Your task to perform on an android device: Search for "sony triple a" on bestbuy, select the first entry, add it to the cart, then select checkout. Image 0: 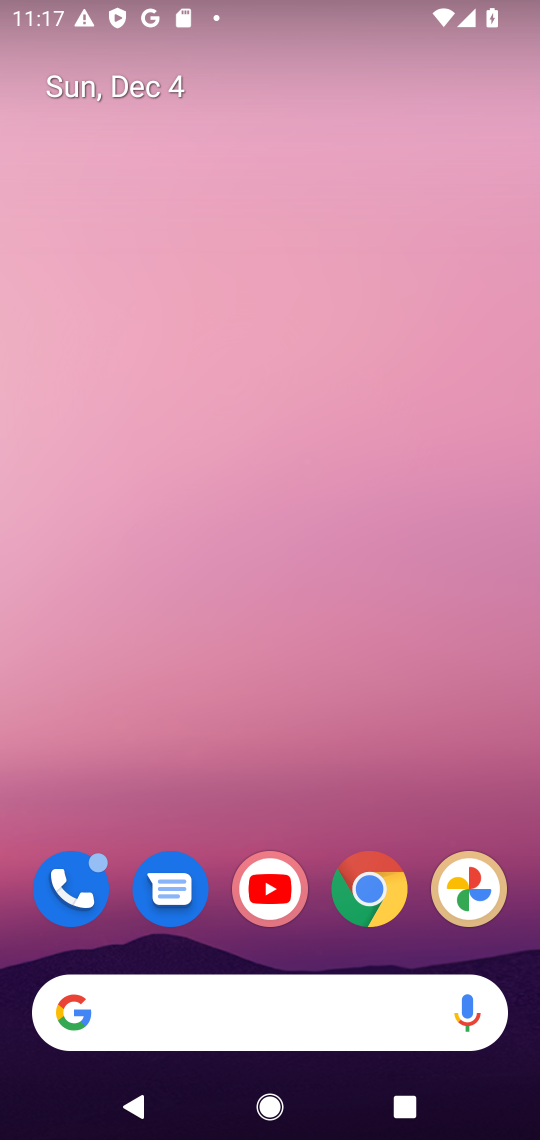
Step 0: click (382, 882)
Your task to perform on an android device: Search for "sony triple a" on bestbuy, select the first entry, add it to the cart, then select checkout. Image 1: 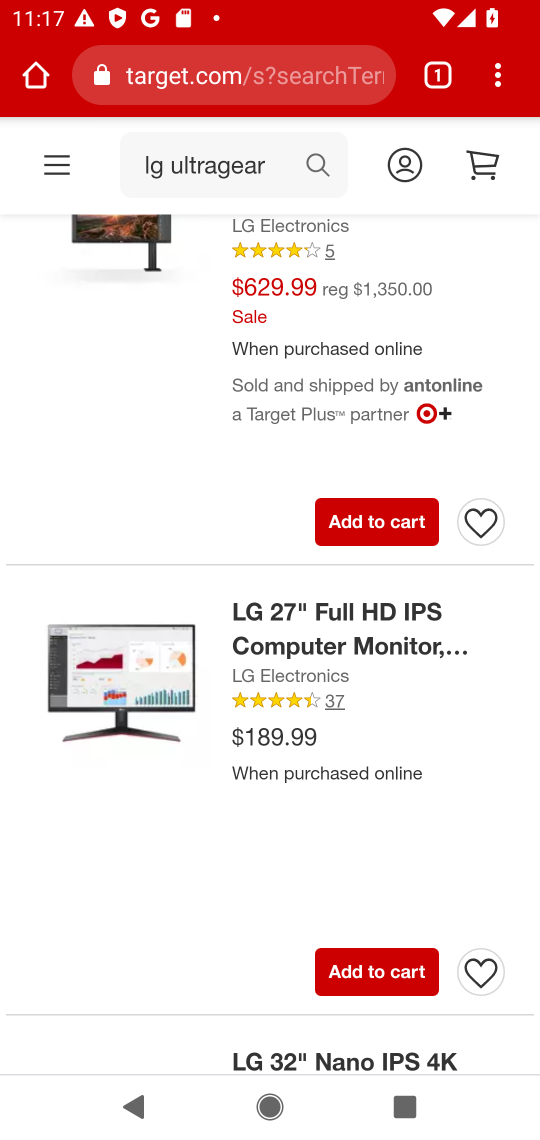
Step 1: click (294, 77)
Your task to perform on an android device: Search for "sony triple a" on bestbuy, select the first entry, add it to the cart, then select checkout. Image 2: 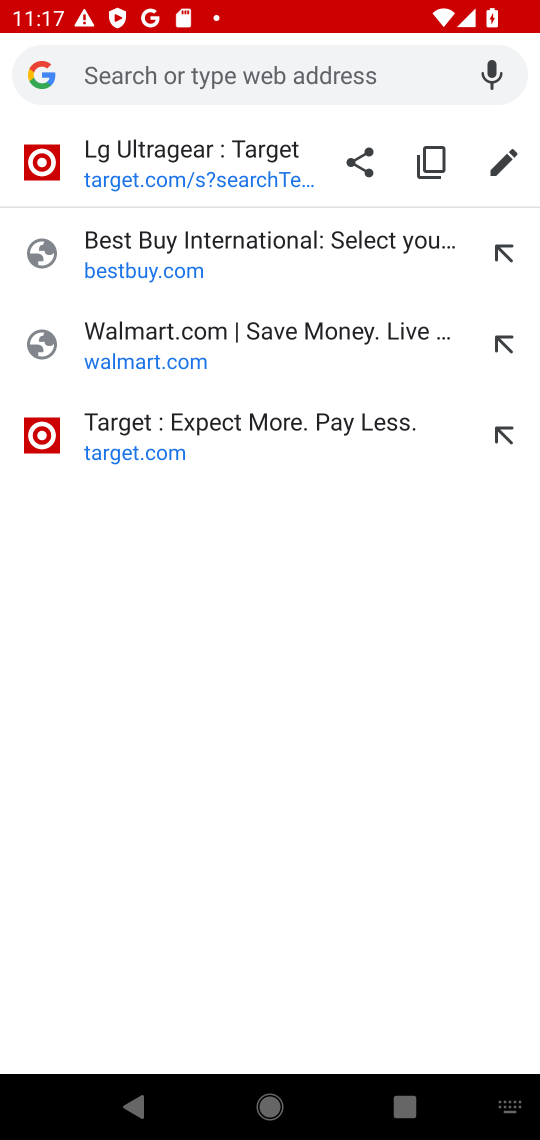
Step 2: type "bestbuy"
Your task to perform on an android device: Search for "sony triple a" on bestbuy, select the first entry, add it to the cart, then select checkout. Image 3: 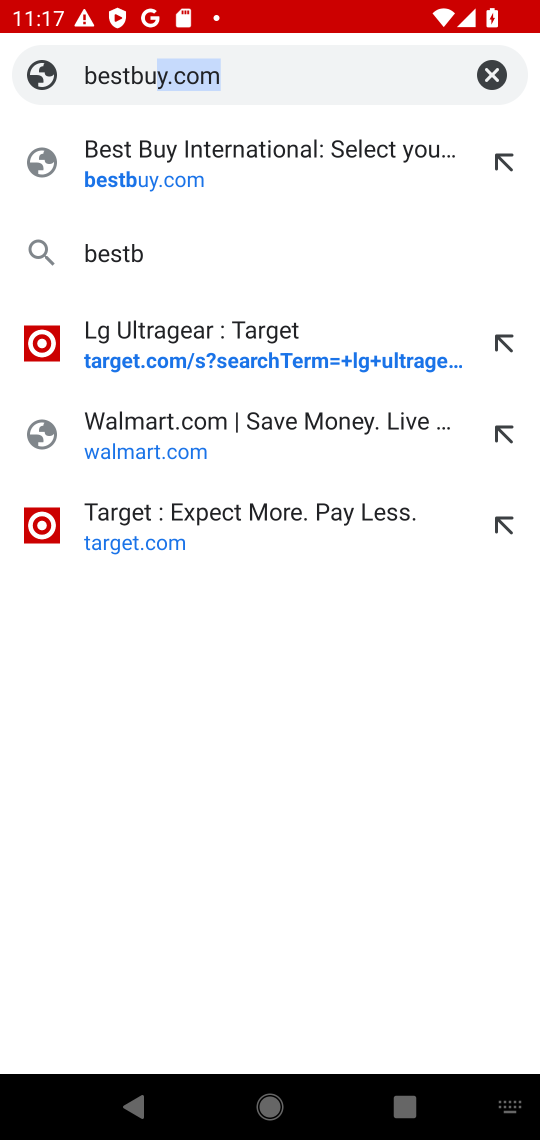
Step 3: press enter
Your task to perform on an android device: Search for "sony triple a" on bestbuy, select the first entry, add it to the cart, then select checkout. Image 4: 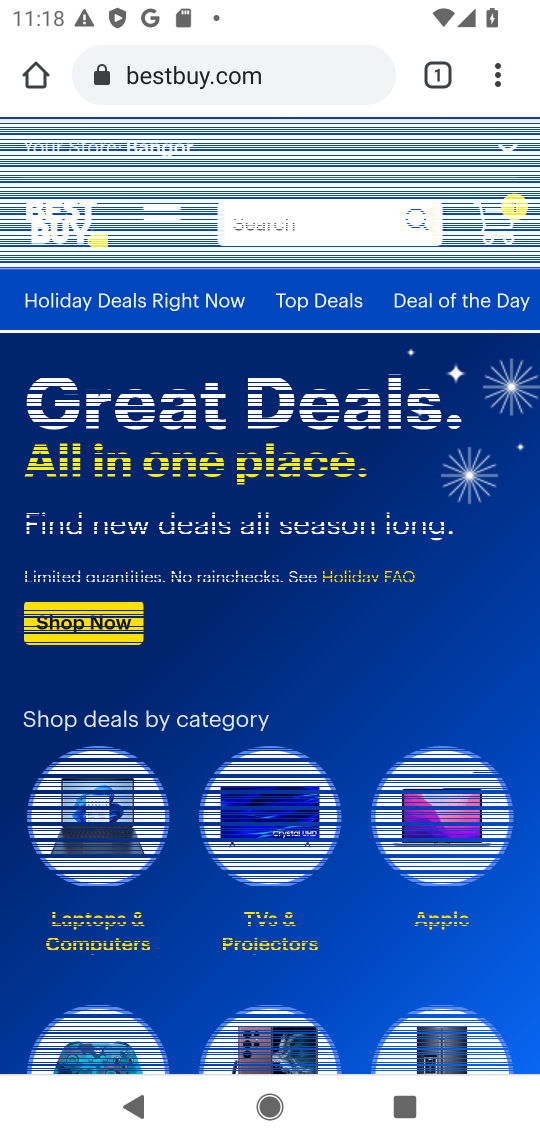
Step 4: click (328, 220)
Your task to perform on an android device: Search for "sony triple a" on bestbuy, select the first entry, add it to the cart, then select checkout. Image 5: 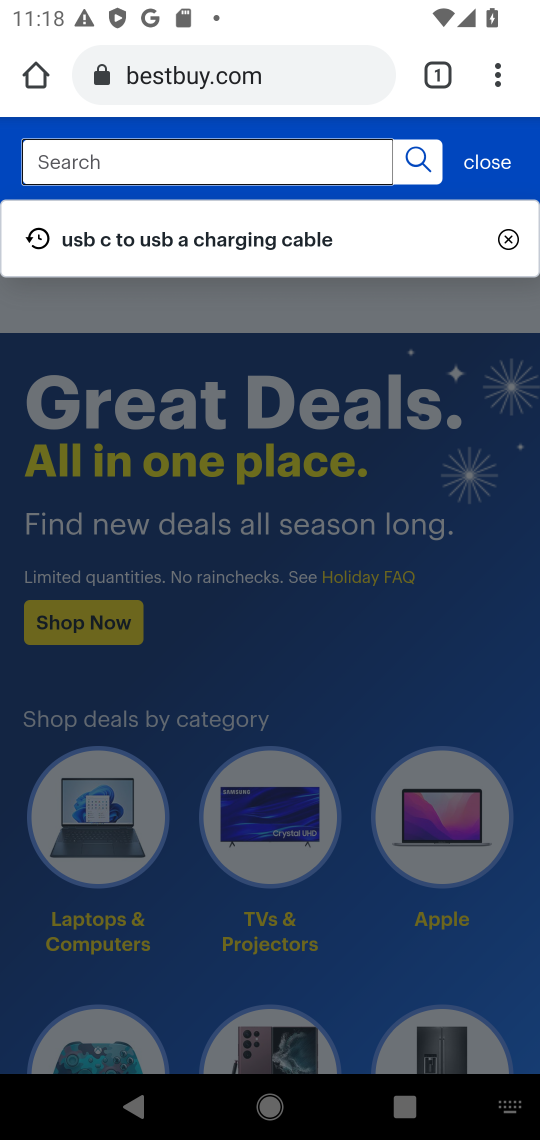
Step 5: type "sony triple a"
Your task to perform on an android device: Search for "sony triple a" on bestbuy, select the first entry, add it to the cart, then select checkout. Image 6: 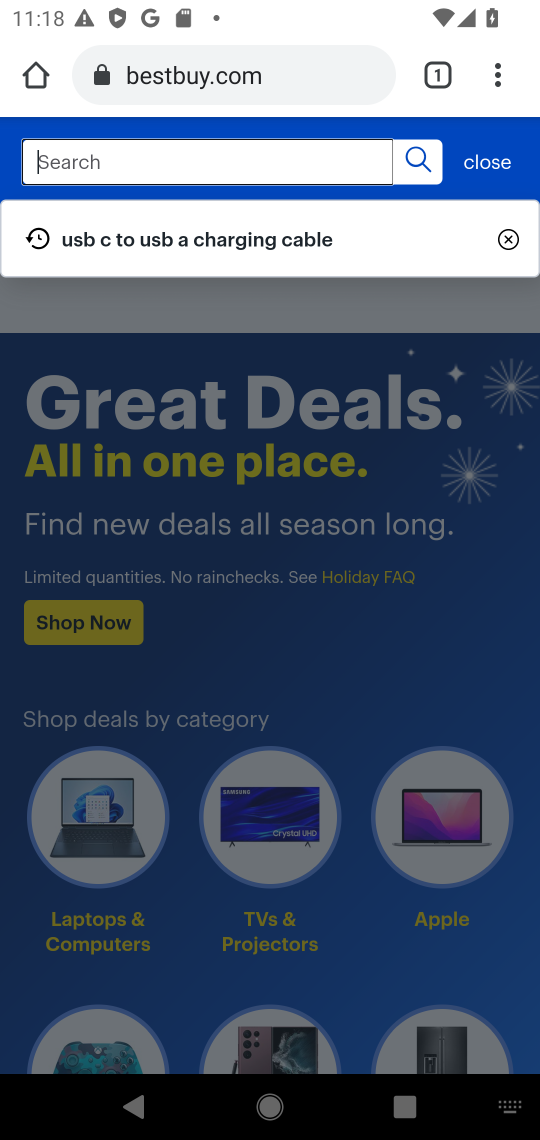
Step 6: press enter
Your task to perform on an android device: Search for "sony triple a" on bestbuy, select the first entry, add it to the cart, then select checkout. Image 7: 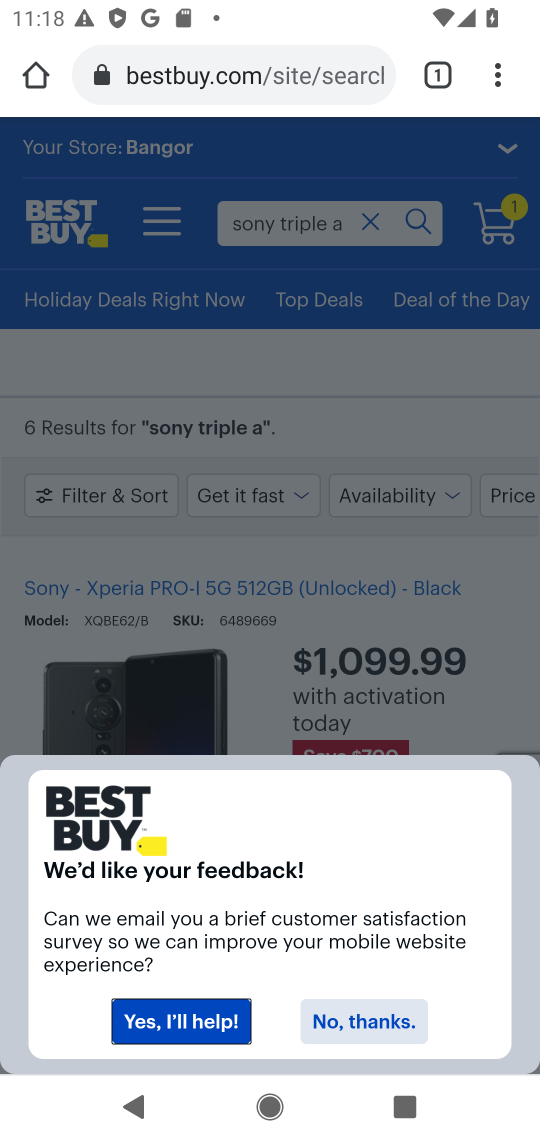
Step 7: click (376, 1017)
Your task to perform on an android device: Search for "sony triple a" on bestbuy, select the first entry, add it to the cart, then select checkout. Image 8: 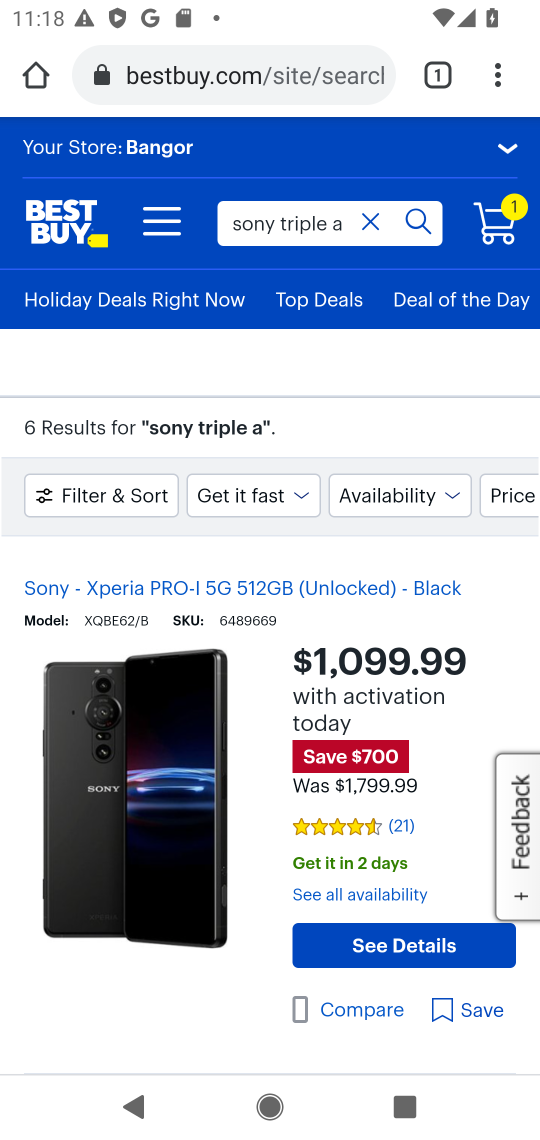
Step 8: task complete